Your task to perform on an android device: Open Yahoo.com Image 0: 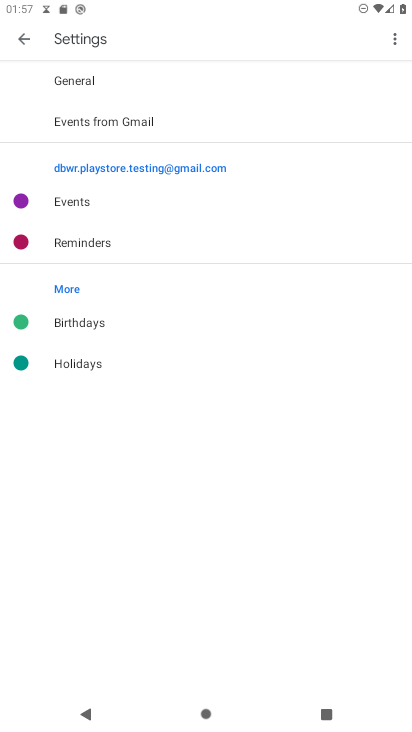
Step 0: press home button
Your task to perform on an android device: Open Yahoo.com Image 1: 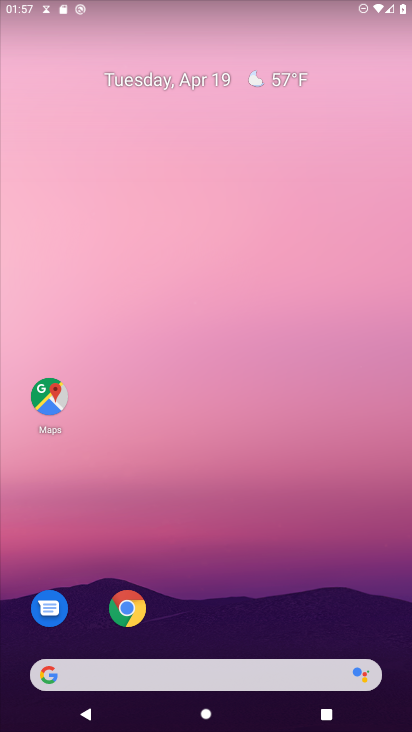
Step 1: click (116, 608)
Your task to perform on an android device: Open Yahoo.com Image 2: 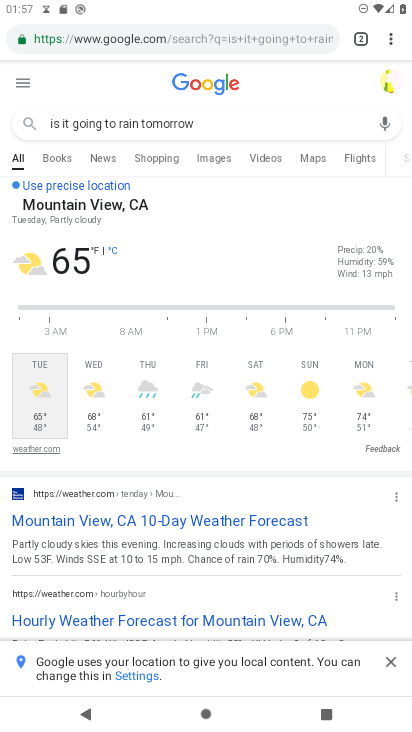
Step 2: click (363, 34)
Your task to perform on an android device: Open Yahoo.com Image 3: 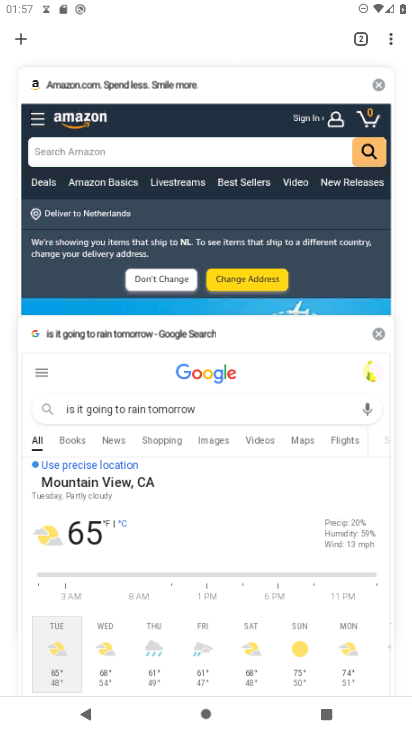
Step 3: click (20, 35)
Your task to perform on an android device: Open Yahoo.com Image 4: 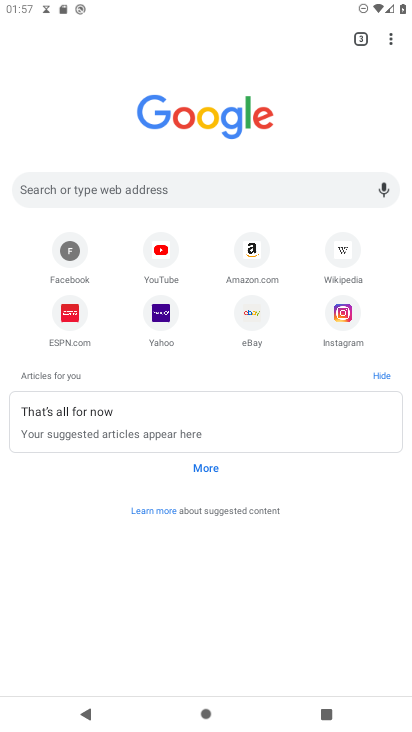
Step 4: click (159, 319)
Your task to perform on an android device: Open Yahoo.com Image 5: 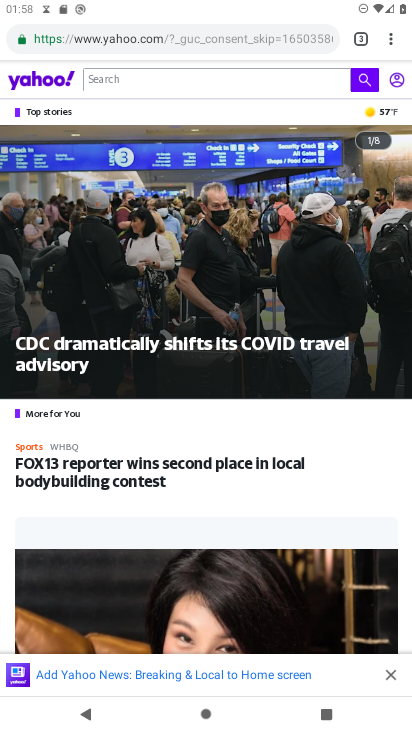
Step 5: drag from (228, 452) to (224, 504)
Your task to perform on an android device: Open Yahoo.com Image 6: 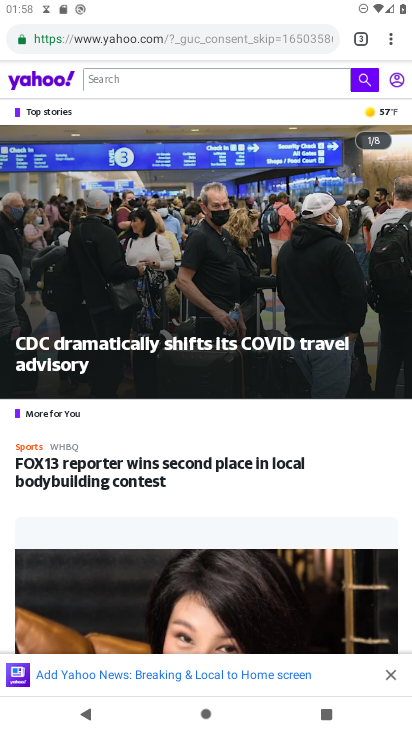
Step 6: press back button
Your task to perform on an android device: Open Yahoo.com Image 7: 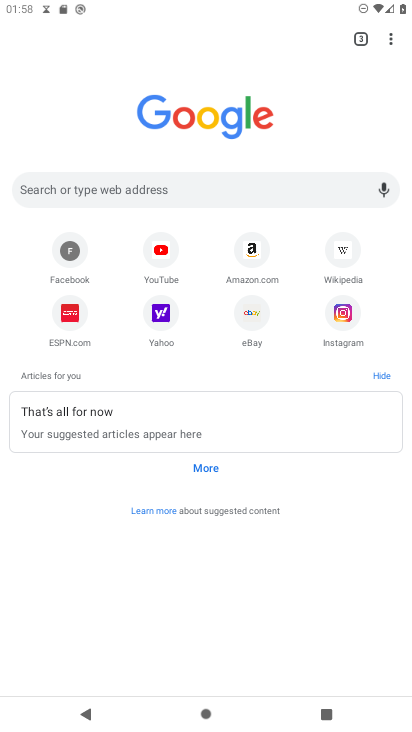
Step 7: click (157, 313)
Your task to perform on an android device: Open Yahoo.com Image 8: 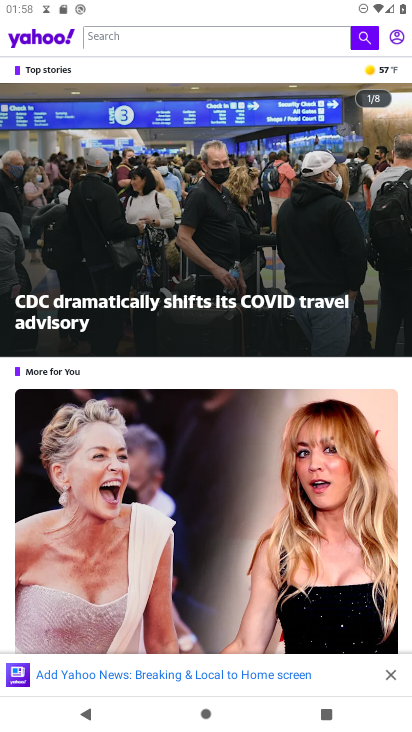
Step 8: task complete